Your task to perform on an android device: check the backup settings in the google photos Image 0: 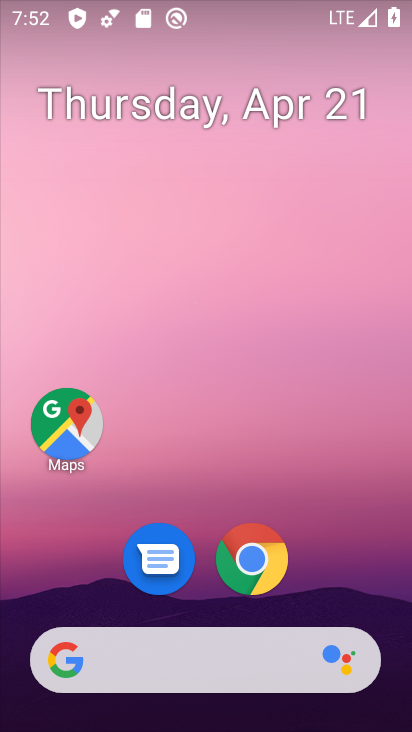
Step 0: drag from (367, 561) to (343, 159)
Your task to perform on an android device: check the backup settings in the google photos Image 1: 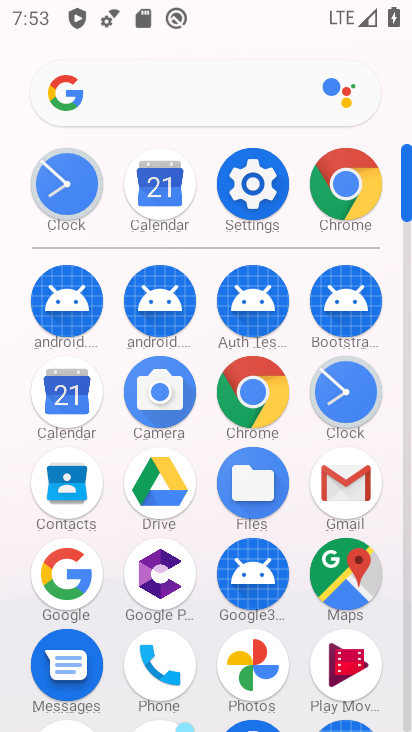
Step 1: click (242, 651)
Your task to perform on an android device: check the backup settings in the google photos Image 2: 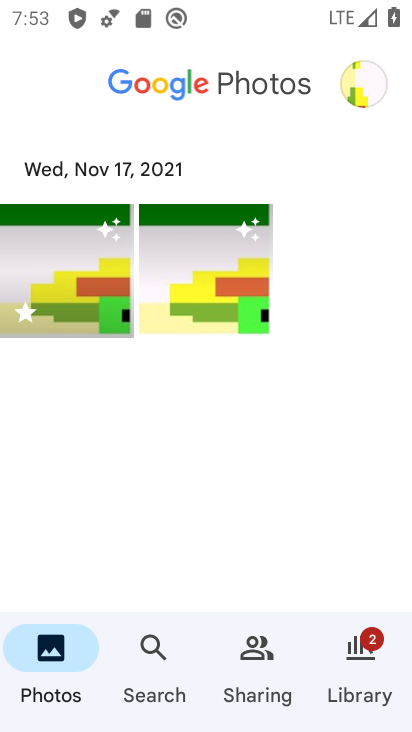
Step 2: click (355, 78)
Your task to perform on an android device: check the backup settings in the google photos Image 3: 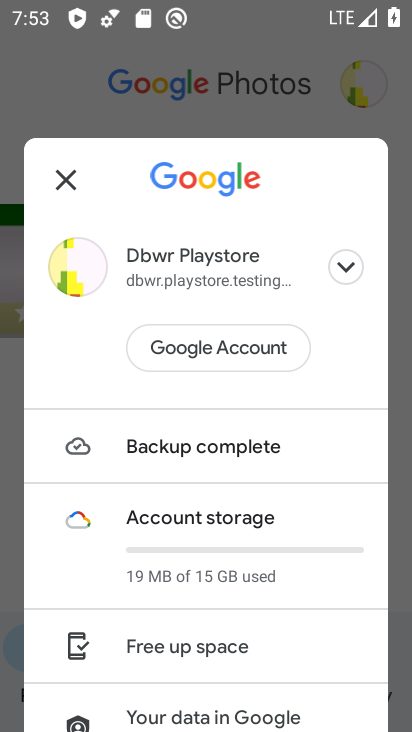
Step 3: drag from (257, 606) to (283, 361)
Your task to perform on an android device: check the backup settings in the google photos Image 4: 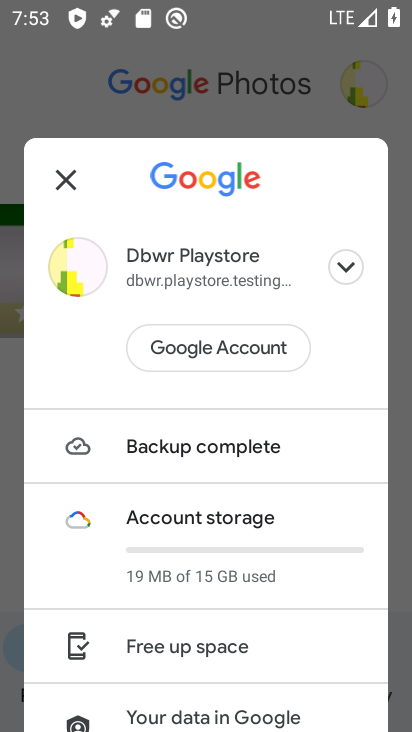
Step 4: drag from (227, 658) to (242, 458)
Your task to perform on an android device: check the backup settings in the google photos Image 5: 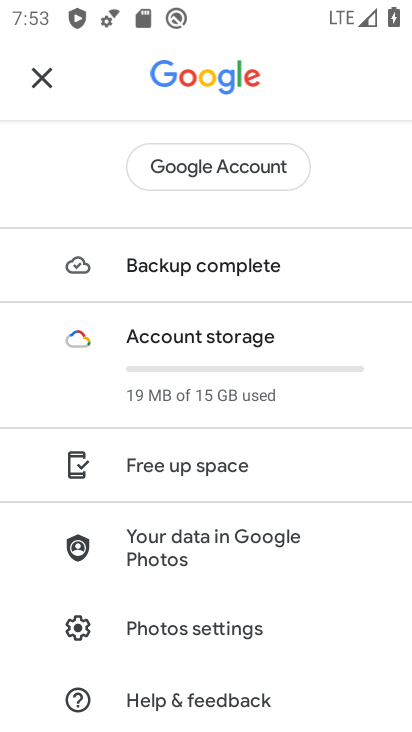
Step 5: click (197, 646)
Your task to perform on an android device: check the backup settings in the google photos Image 6: 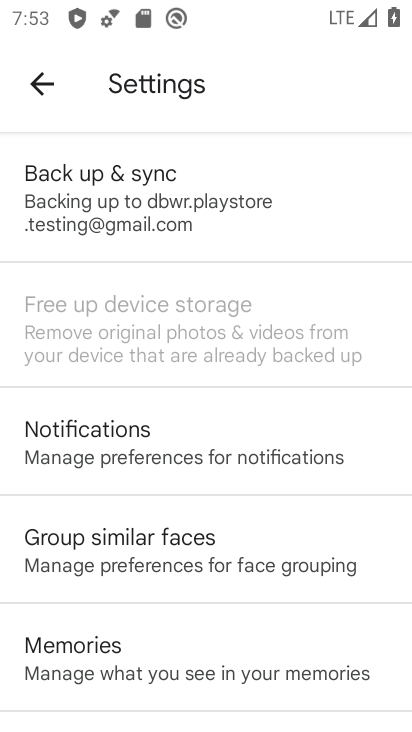
Step 6: click (123, 191)
Your task to perform on an android device: check the backup settings in the google photos Image 7: 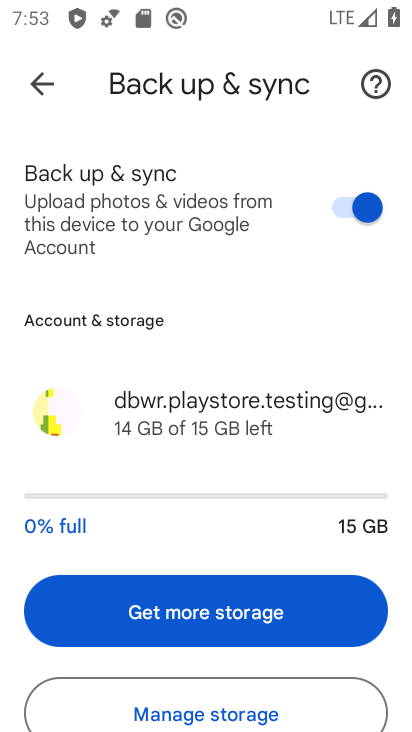
Step 7: task complete